Your task to perform on an android device: turn on data saver in the chrome app Image 0: 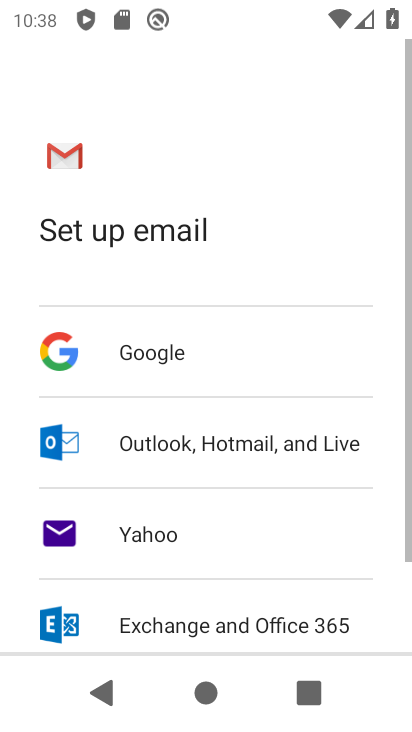
Step 0: press back button
Your task to perform on an android device: turn on data saver in the chrome app Image 1: 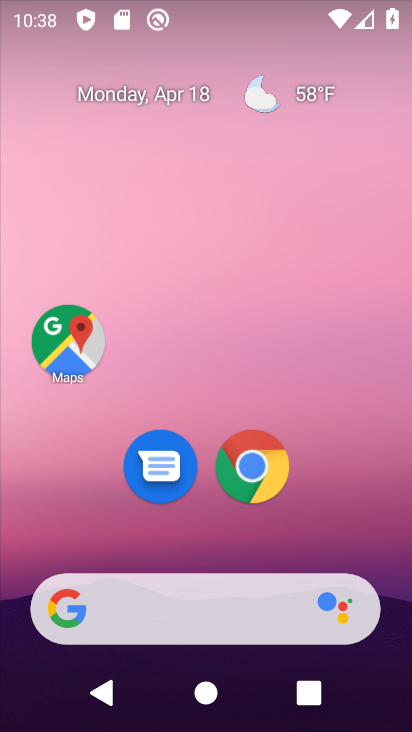
Step 1: click (256, 474)
Your task to perform on an android device: turn on data saver in the chrome app Image 2: 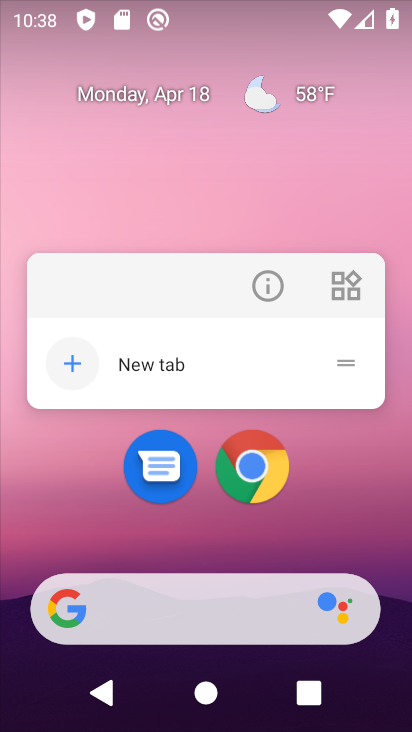
Step 2: click (246, 439)
Your task to perform on an android device: turn on data saver in the chrome app Image 3: 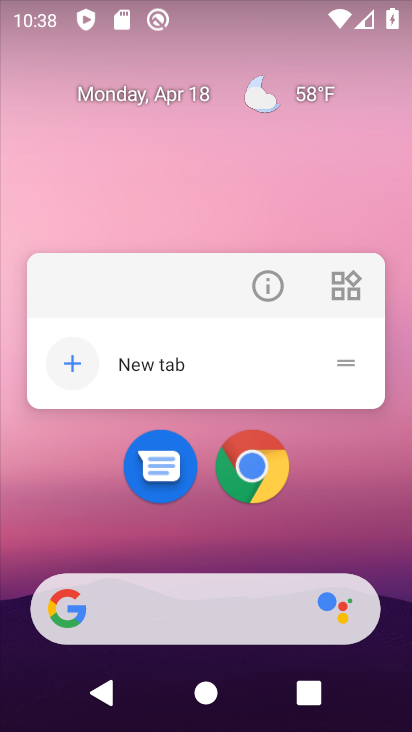
Step 3: click (246, 439)
Your task to perform on an android device: turn on data saver in the chrome app Image 4: 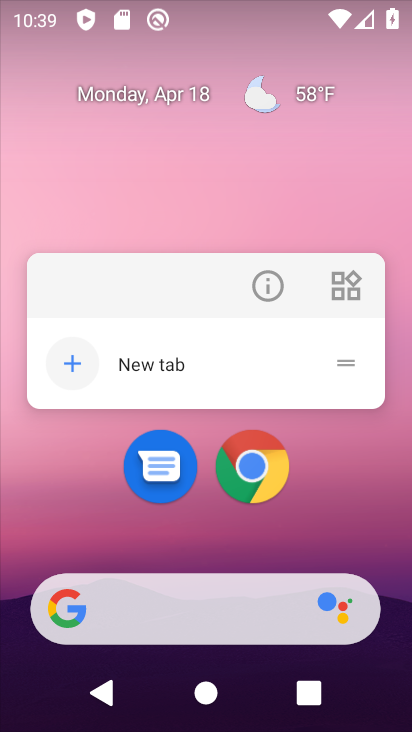
Step 4: click (236, 449)
Your task to perform on an android device: turn on data saver in the chrome app Image 5: 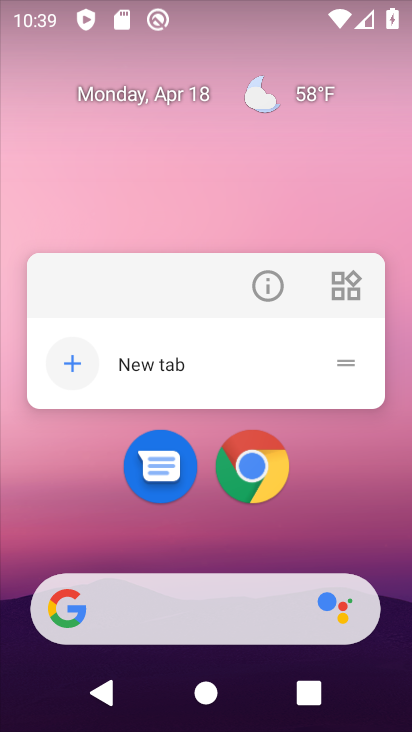
Step 5: click (236, 449)
Your task to perform on an android device: turn on data saver in the chrome app Image 6: 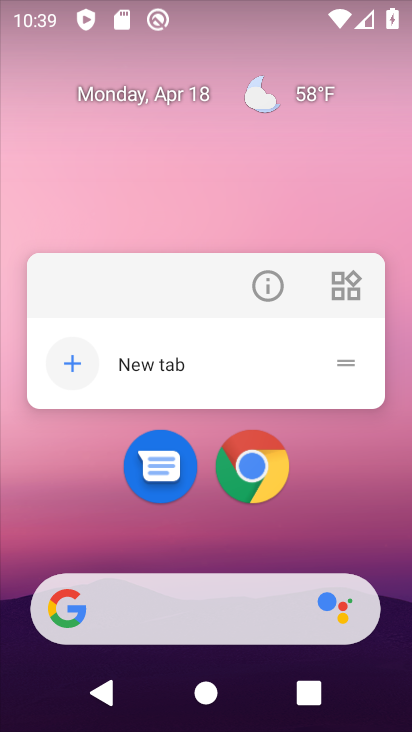
Step 6: click (236, 449)
Your task to perform on an android device: turn on data saver in the chrome app Image 7: 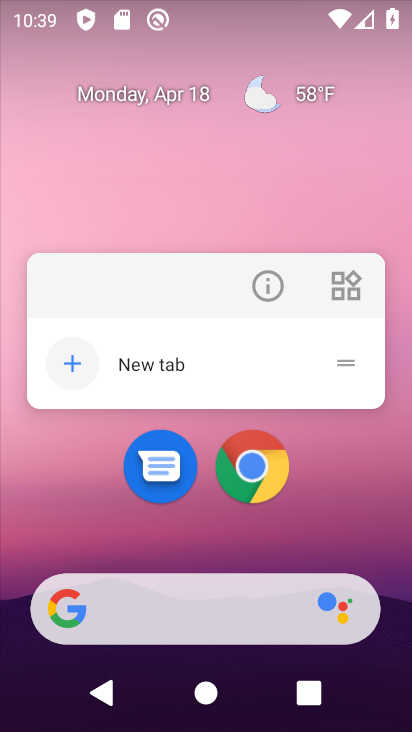
Step 7: click (262, 471)
Your task to perform on an android device: turn on data saver in the chrome app Image 8: 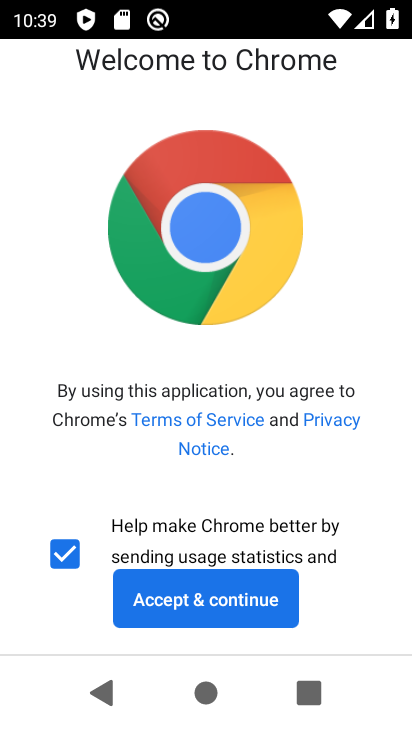
Step 8: click (205, 589)
Your task to perform on an android device: turn on data saver in the chrome app Image 9: 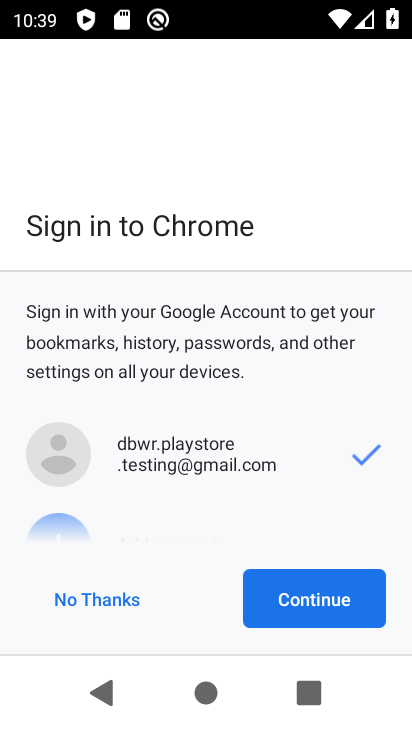
Step 9: click (259, 587)
Your task to perform on an android device: turn on data saver in the chrome app Image 10: 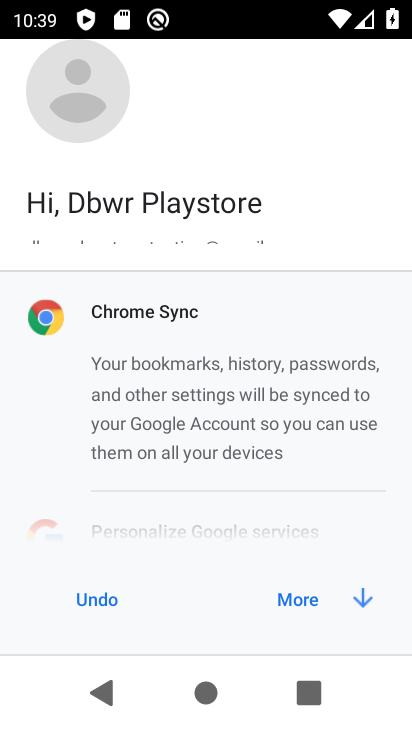
Step 10: click (278, 597)
Your task to perform on an android device: turn on data saver in the chrome app Image 11: 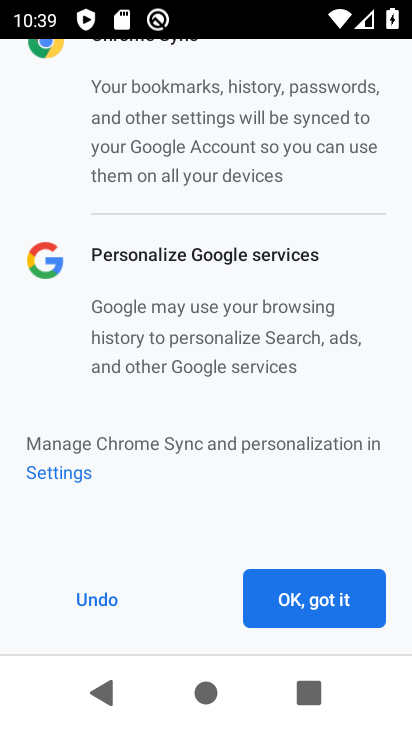
Step 11: click (278, 597)
Your task to perform on an android device: turn on data saver in the chrome app Image 12: 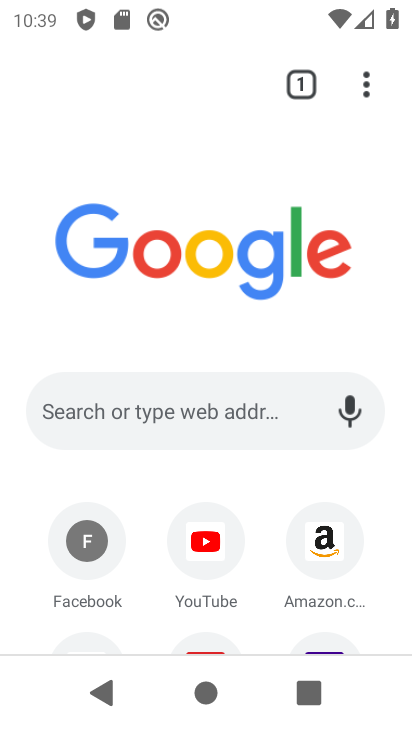
Step 12: drag from (360, 86) to (77, 519)
Your task to perform on an android device: turn on data saver in the chrome app Image 13: 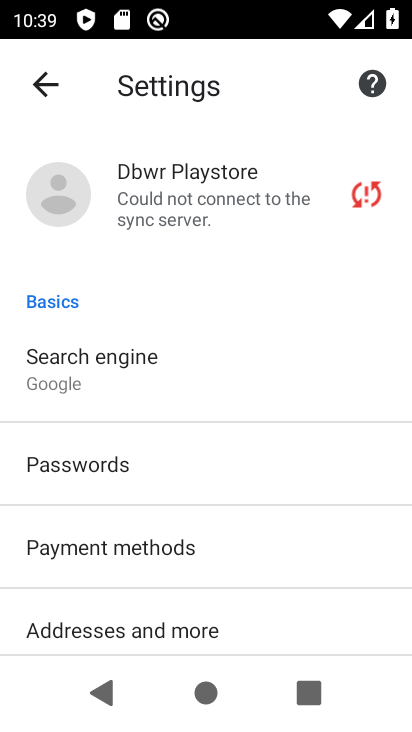
Step 13: drag from (92, 605) to (65, 106)
Your task to perform on an android device: turn on data saver in the chrome app Image 14: 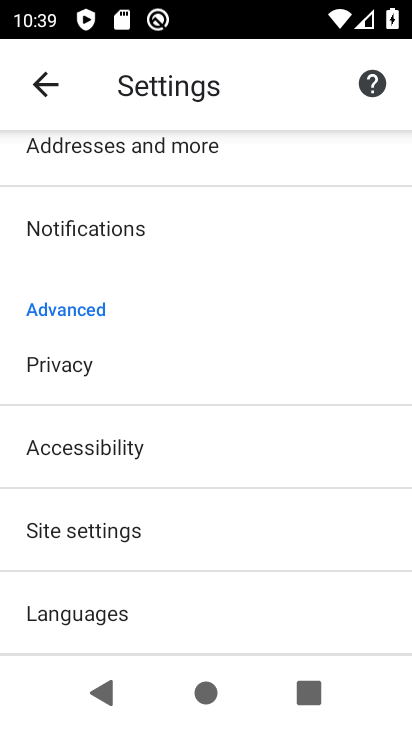
Step 14: drag from (163, 577) to (160, 60)
Your task to perform on an android device: turn on data saver in the chrome app Image 15: 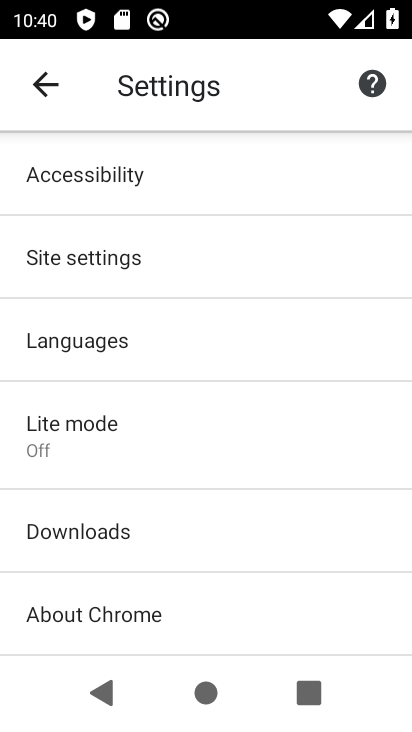
Step 15: click (86, 449)
Your task to perform on an android device: turn on data saver in the chrome app Image 16: 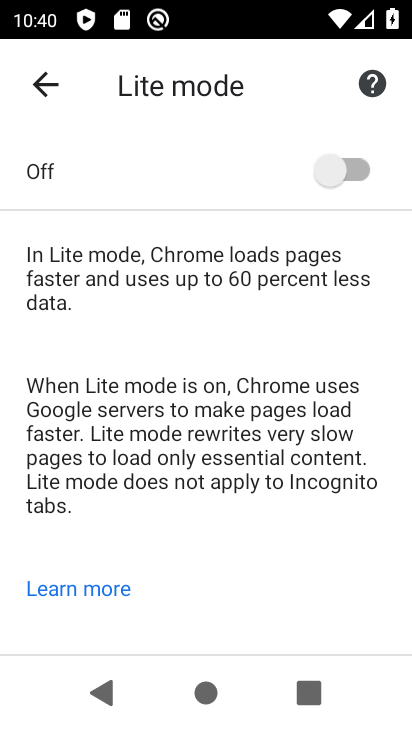
Step 16: click (348, 167)
Your task to perform on an android device: turn on data saver in the chrome app Image 17: 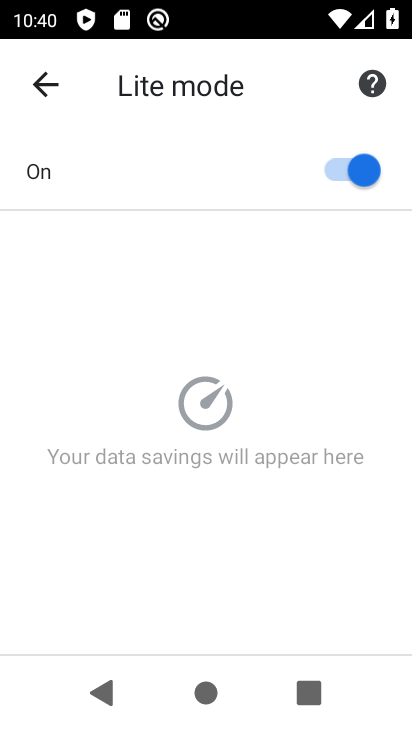
Step 17: task complete